Your task to perform on an android device: Open settings on Google Maps Image 0: 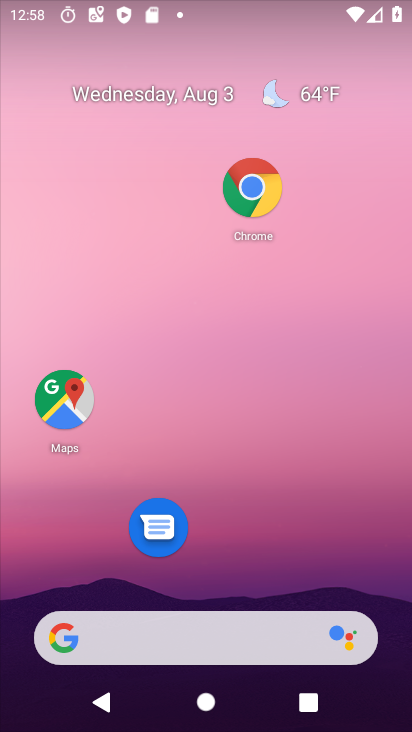
Step 0: drag from (221, 589) to (237, 136)
Your task to perform on an android device: Open settings on Google Maps Image 1: 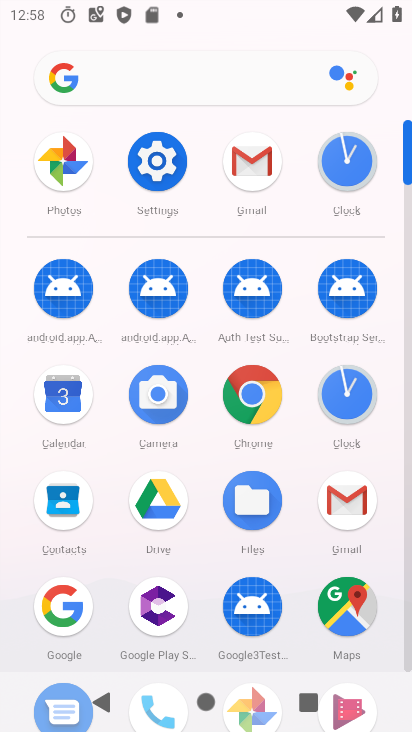
Step 1: drag from (247, 549) to (244, 413)
Your task to perform on an android device: Open settings on Google Maps Image 2: 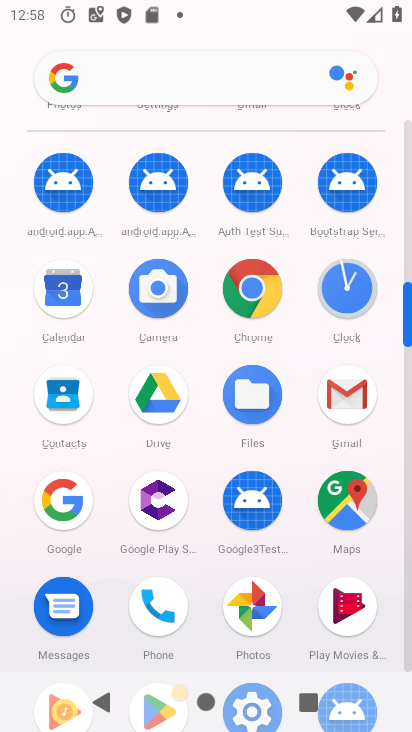
Step 2: click (355, 510)
Your task to perform on an android device: Open settings on Google Maps Image 3: 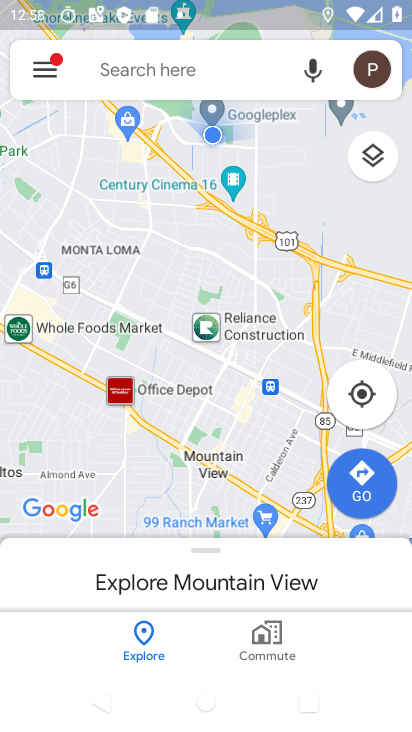
Step 3: click (44, 80)
Your task to perform on an android device: Open settings on Google Maps Image 4: 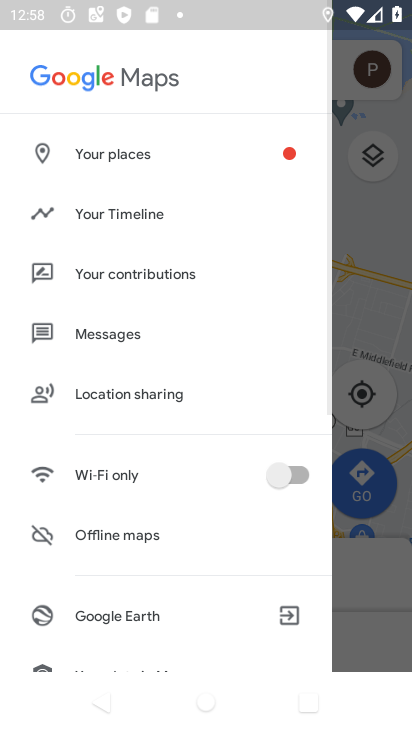
Step 4: drag from (127, 539) to (131, 292)
Your task to perform on an android device: Open settings on Google Maps Image 5: 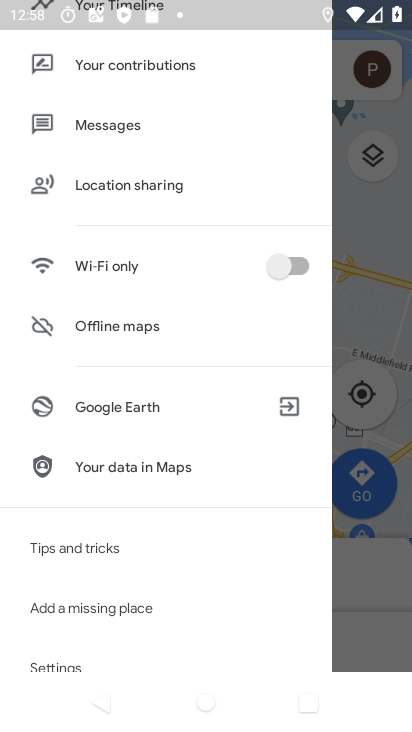
Step 5: drag from (56, 652) to (68, 324)
Your task to perform on an android device: Open settings on Google Maps Image 6: 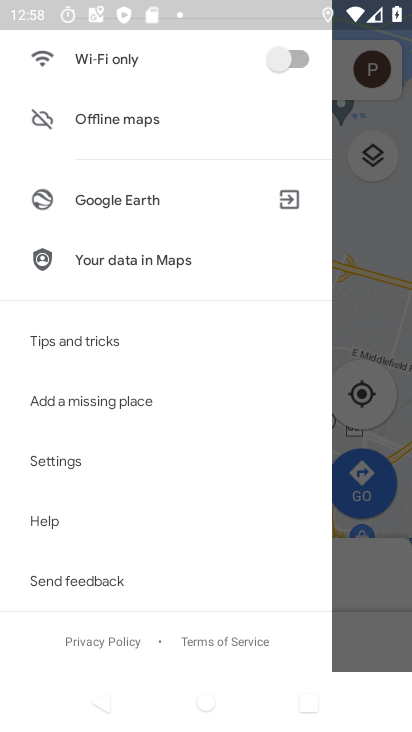
Step 6: click (68, 450)
Your task to perform on an android device: Open settings on Google Maps Image 7: 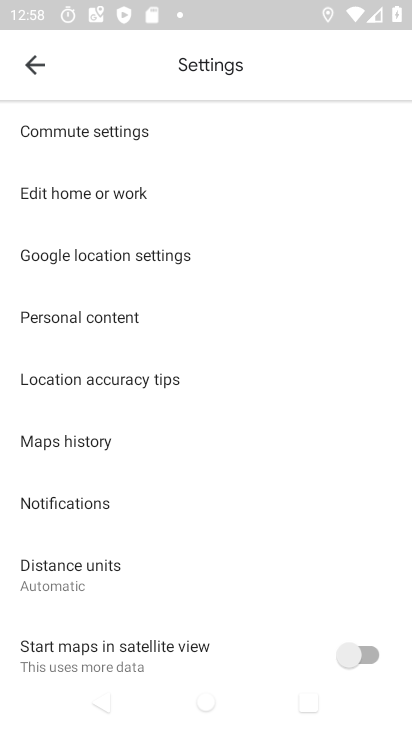
Step 7: task complete